Your task to perform on an android device: turn on bluetooth scan Image 0: 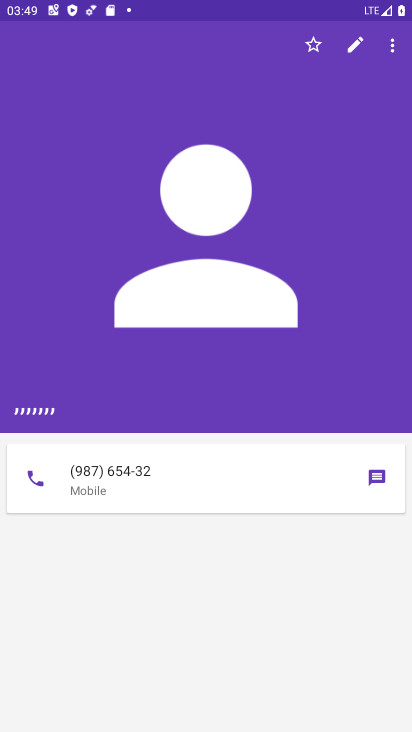
Step 0: press home button
Your task to perform on an android device: turn on bluetooth scan Image 1: 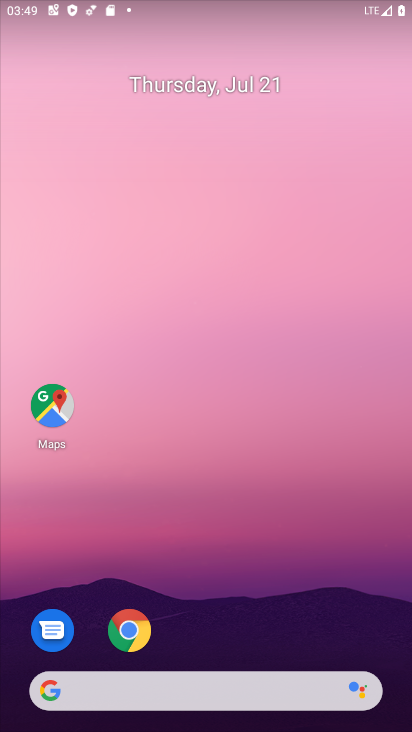
Step 1: drag from (205, 654) to (237, 102)
Your task to perform on an android device: turn on bluetooth scan Image 2: 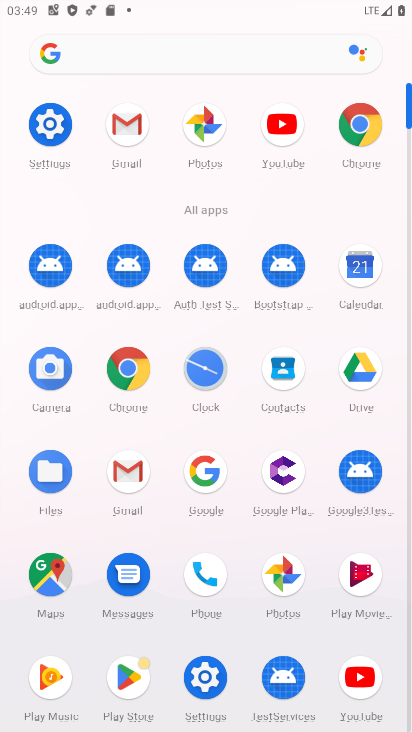
Step 2: click (205, 689)
Your task to perform on an android device: turn on bluetooth scan Image 3: 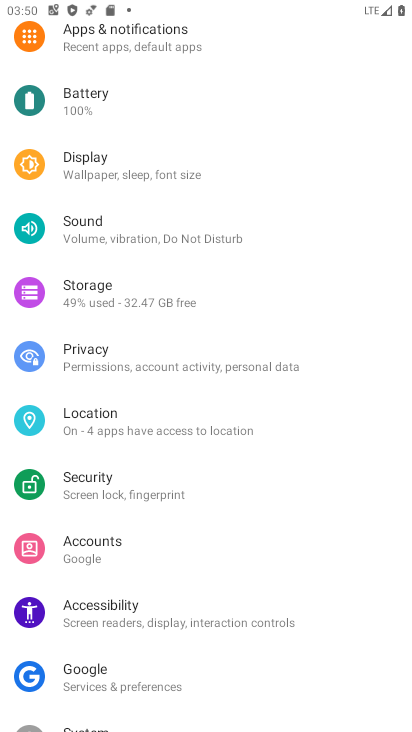
Step 3: click (123, 439)
Your task to perform on an android device: turn on bluetooth scan Image 4: 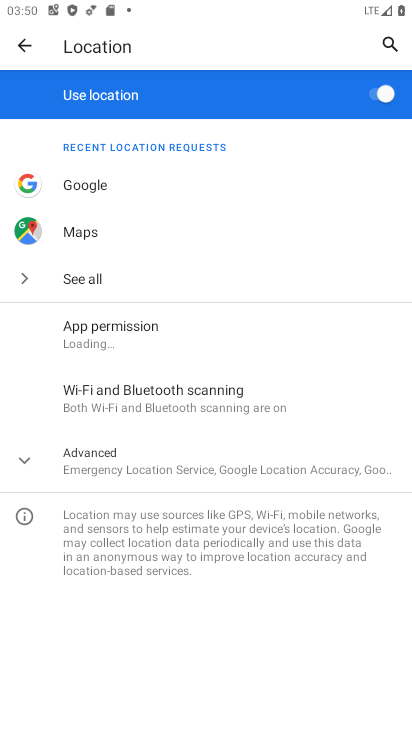
Step 4: click (199, 392)
Your task to perform on an android device: turn on bluetooth scan Image 5: 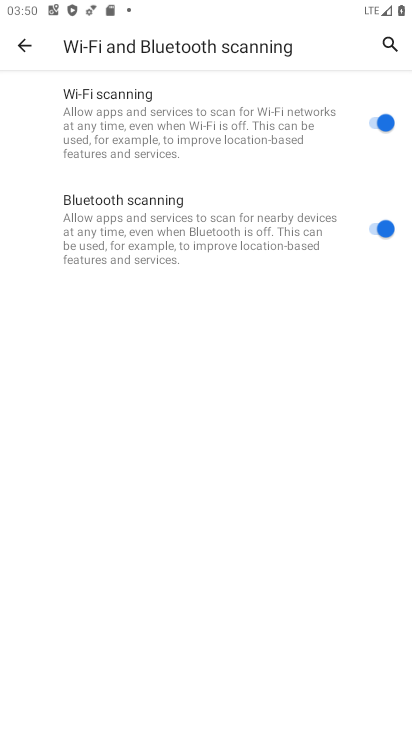
Step 5: task complete